Your task to perform on an android device: toggle sleep mode Image 0: 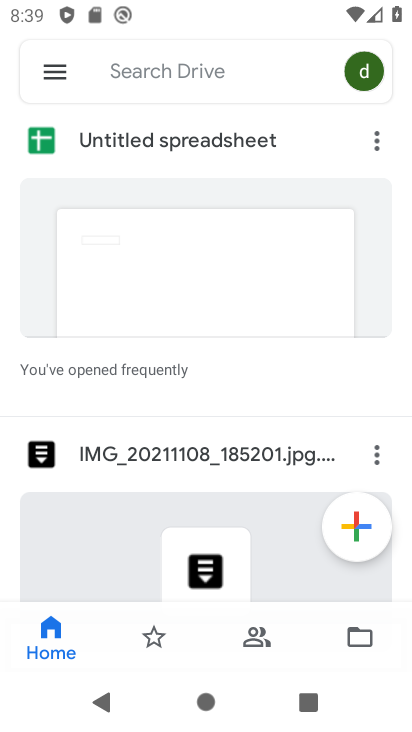
Step 0: press home button
Your task to perform on an android device: toggle sleep mode Image 1: 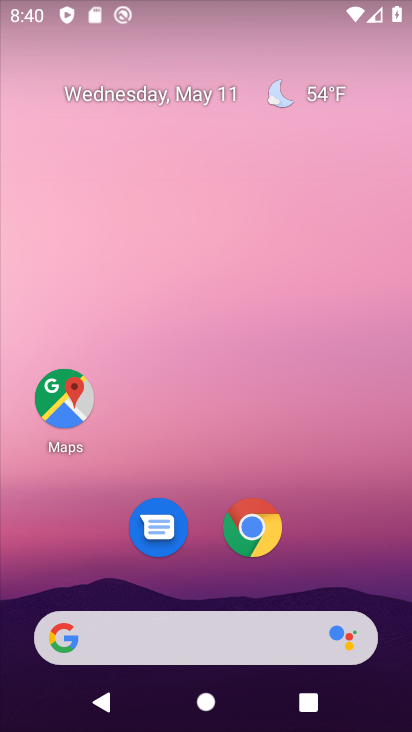
Step 1: drag from (285, 560) to (220, 135)
Your task to perform on an android device: toggle sleep mode Image 2: 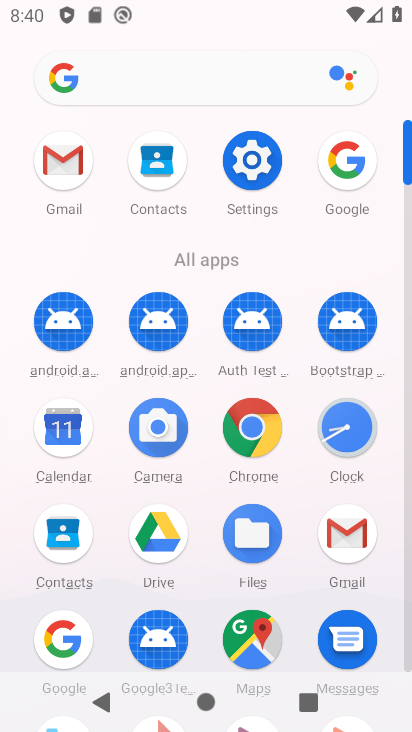
Step 2: click (246, 190)
Your task to perform on an android device: toggle sleep mode Image 3: 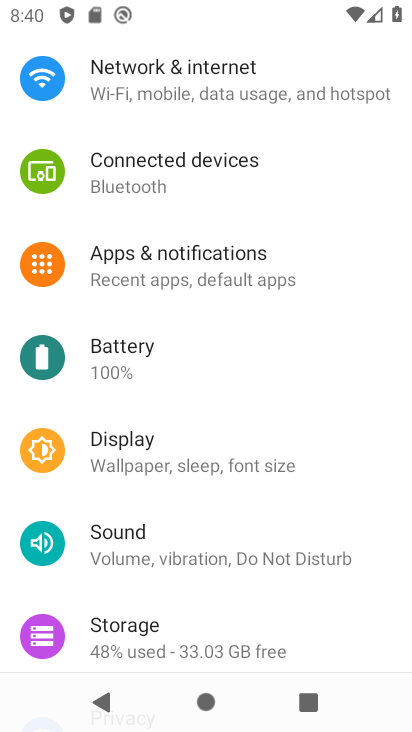
Step 3: drag from (177, 551) to (164, 211)
Your task to perform on an android device: toggle sleep mode Image 4: 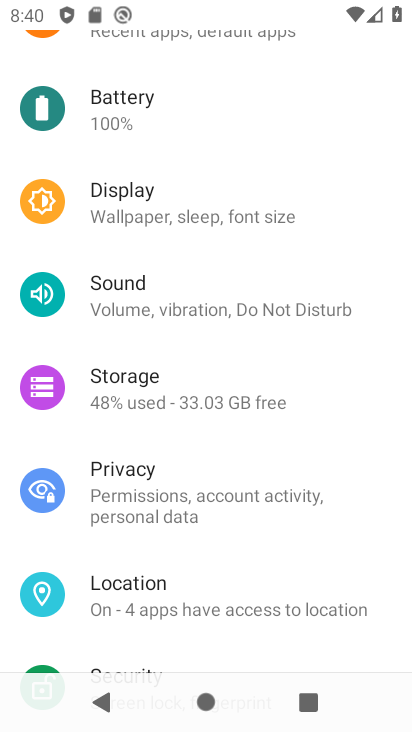
Step 4: drag from (167, 208) to (171, 295)
Your task to perform on an android device: toggle sleep mode Image 5: 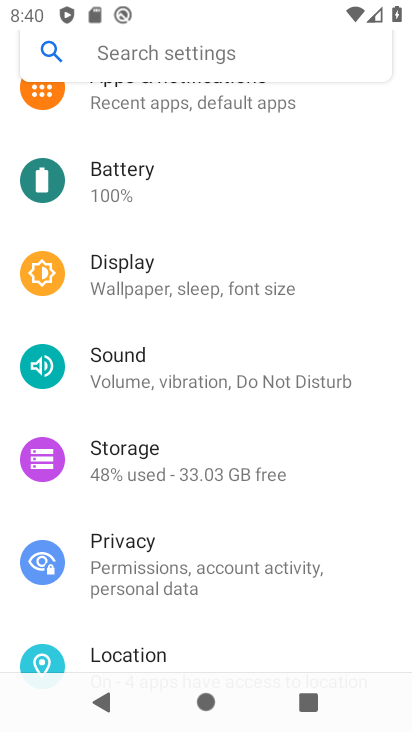
Step 5: click (171, 295)
Your task to perform on an android device: toggle sleep mode Image 6: 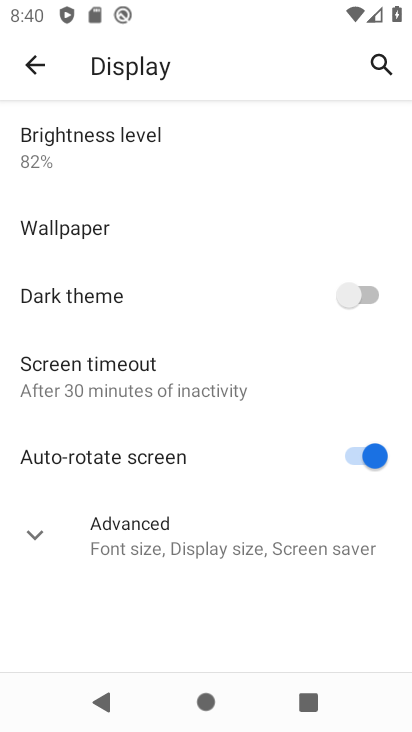
Step 6: click (32, 522)
Your task to perform on an android device: toggle sleep mode Image 7: 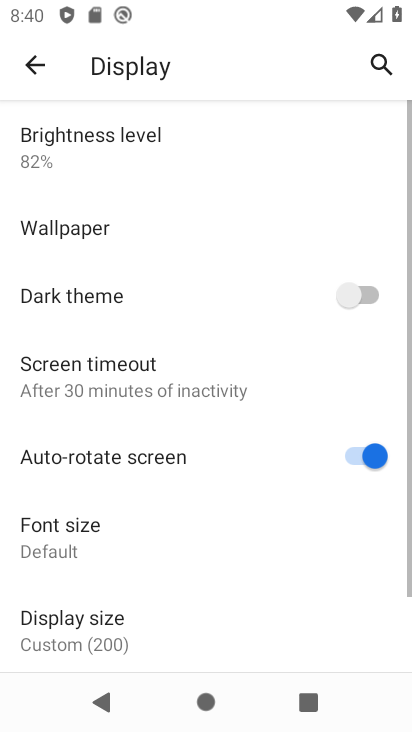
Step 7: task complete